Your task to perform on an android device: Play the last video I watched on Youtube Image 0: 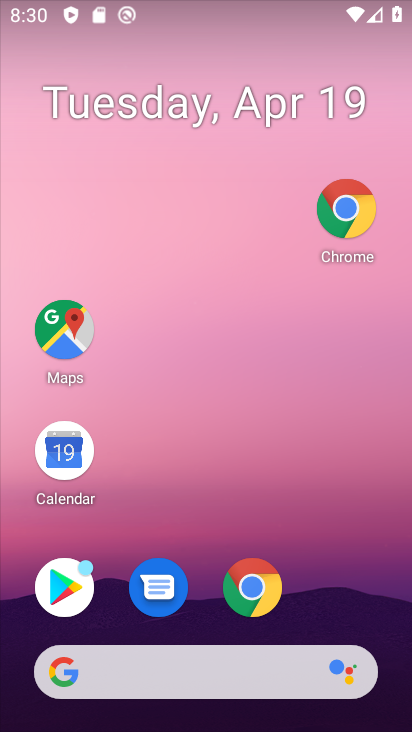
Step 0: click (161, 49)
Your task to perform on an android device: Play the last video I watched on Youtube Image 1: 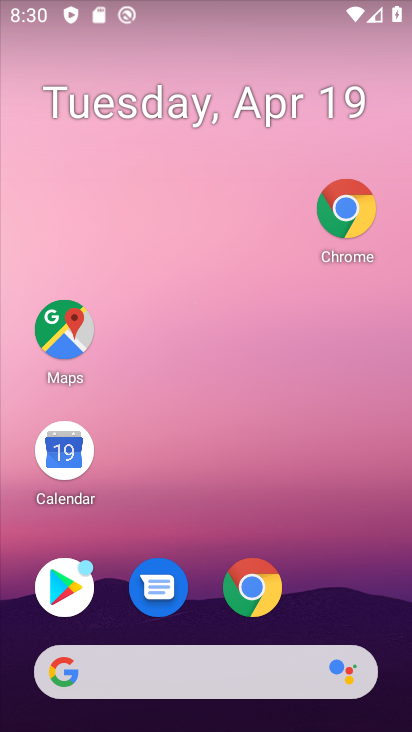
Step 1: click (276, 146)
Your task to perform on an android device: Play the last video I watched on Youtube Image 2: 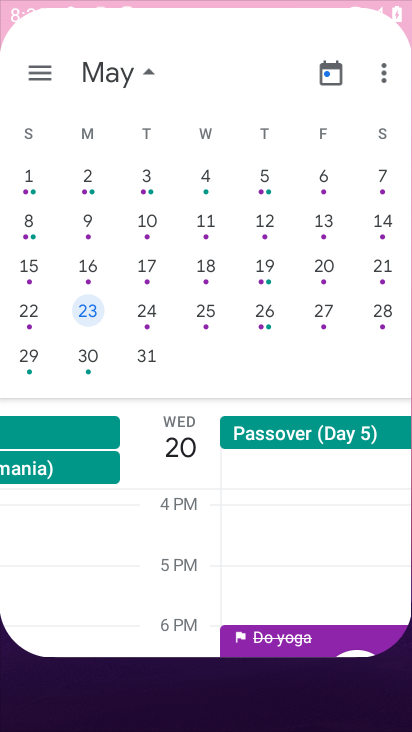
Step 2: drag from (267, 674) to (205, 155)
Your task to perform on an android device: Play the last video I watched on Youtube Image 3: 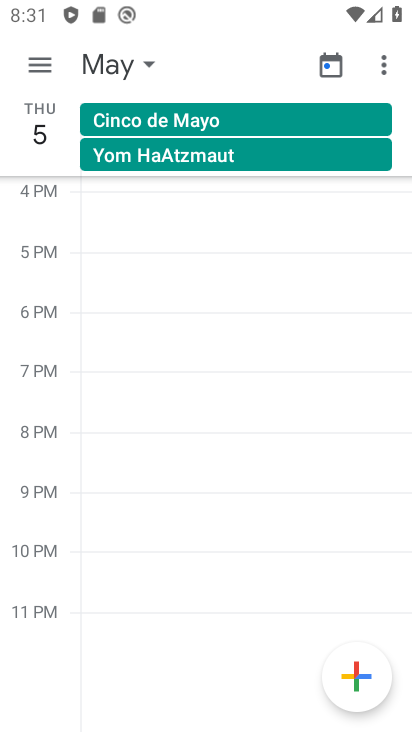
Step 3: press home button
Your task to perform on an android device: Play the last video I watched on Youtube Image 4: 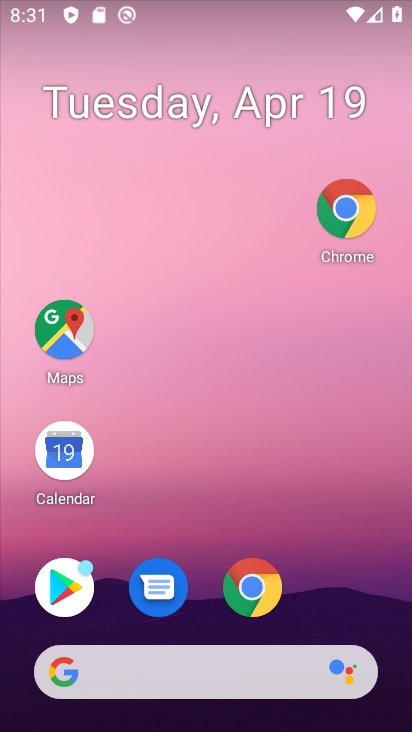
Step 4: drag from (240, 722) to (131, 110)
Your task to perform on an android device: Play the last video I watched on Youtube Image 5: 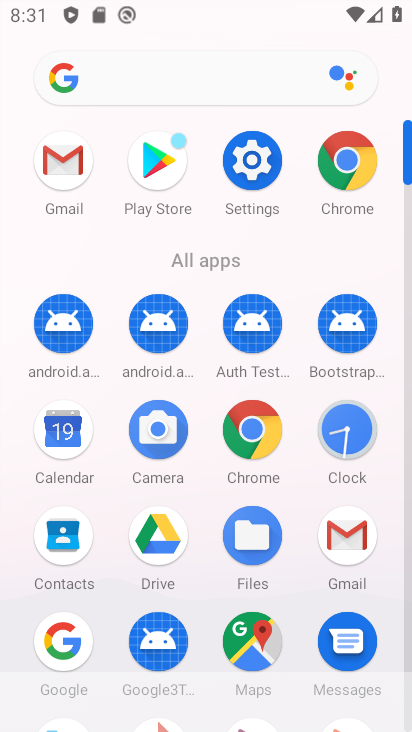
Step 5: drag from (384, 566) to (379, 109)
Your task to perform on an android device: Play the last video I watched on Youtube Image 6: 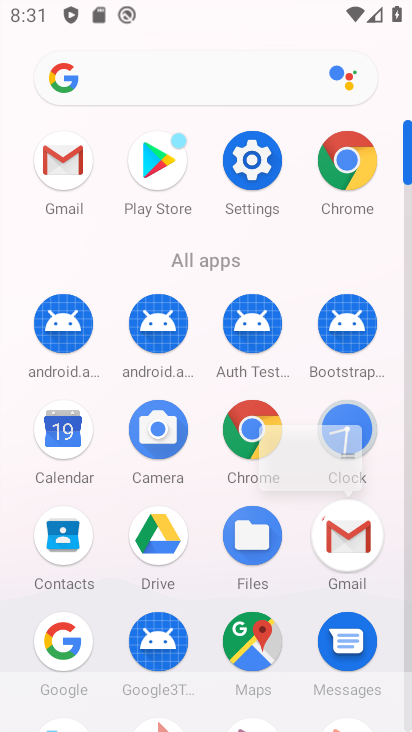
Step 6: drag from (357, 476) to (190, 80)
Your task to perform on an android device: Play the last video I watched on Youtube Image 7: 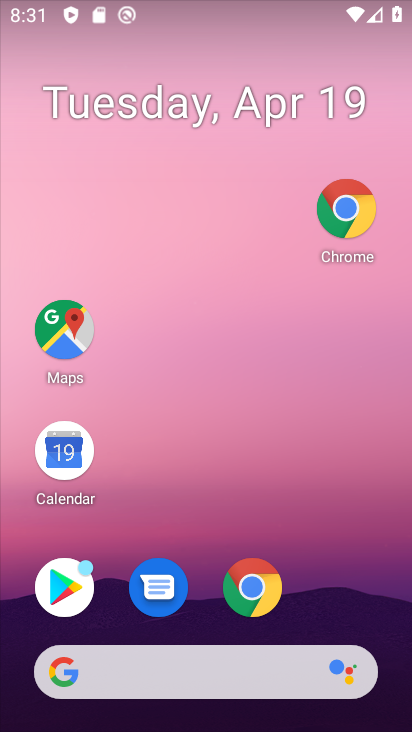
Step 7: drag from (354, 650) to (93, 177)
Your task to perform on an android device: Play the last video I watched on Youtube Image 8: 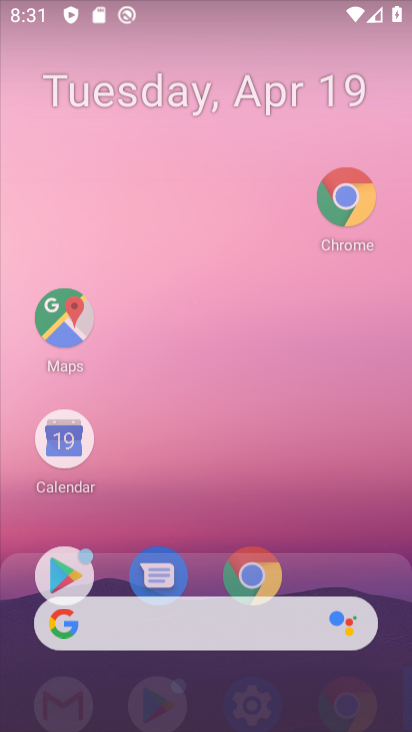
Step 8: drag from (210, 474) to (129, 46)
Your task to perform on an android device: Play the last video I watched on Youtube Image 9: 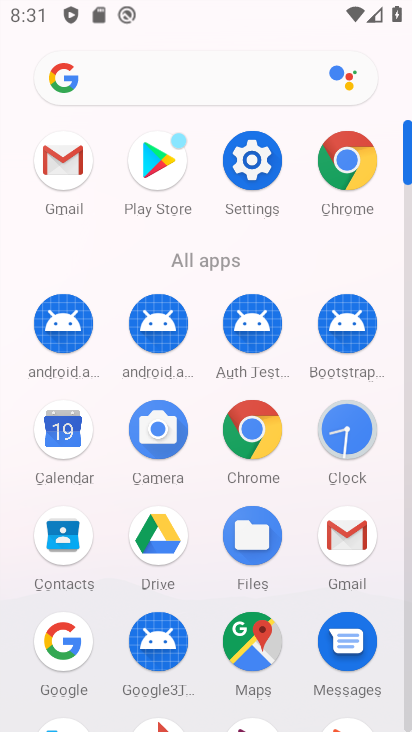
Step 9: drag from (310, 525) to (229, 37)
Your task to perform on an android device: Play the last video I watched on Youtube Image 10: 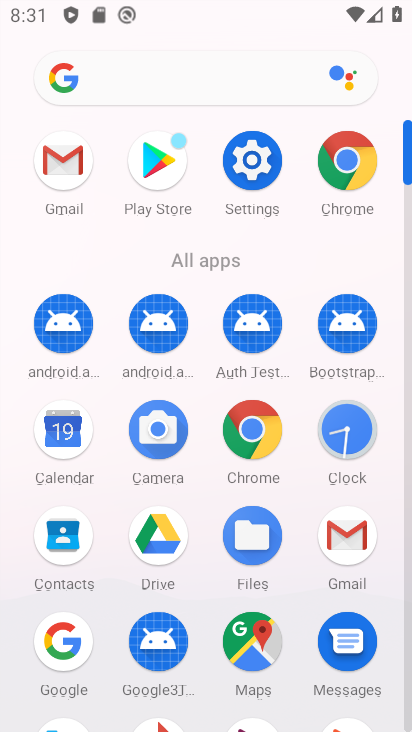
Step 10: drag from (240, 548) to (251, 27)
Your task to perform on an android device: Play the last video I watched on Youtube Image 11: 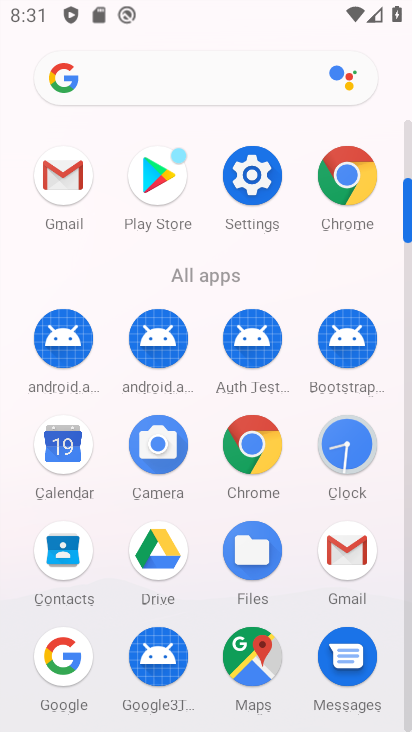
Step 11: drag from (289, 478) to (235, 132)
Your task to perform on an android device: Play the last video I watched on Youtube Image 12: 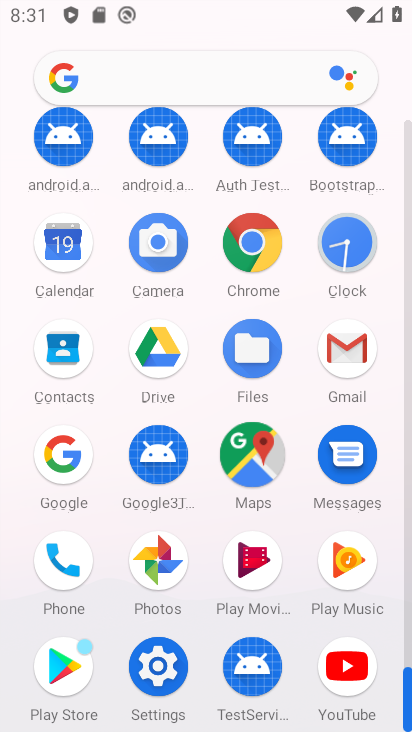
Step 12: drag from (203, 496) to (216, 188)
Your task to perform on an android device: Play the last video I watched on Youtube Image 13: 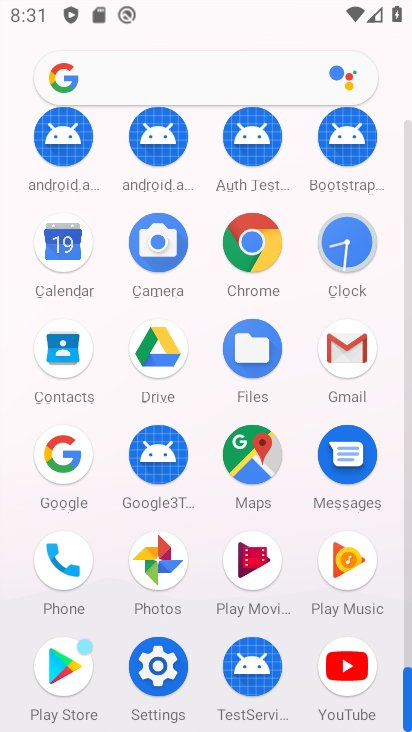
Step 13: click (341, 668)
Your task to perform on an android device: Play the last video I watched on Youtube Image 14: 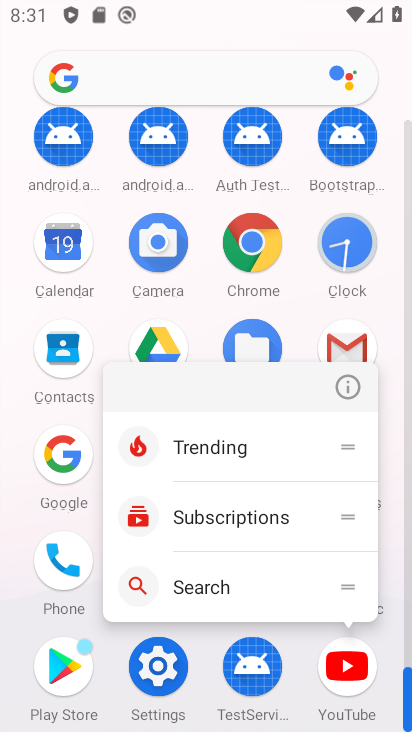
Step 14: click (338, 671)
Your task to perform on an android device: Play the last video I watched on Youtube Image 15: 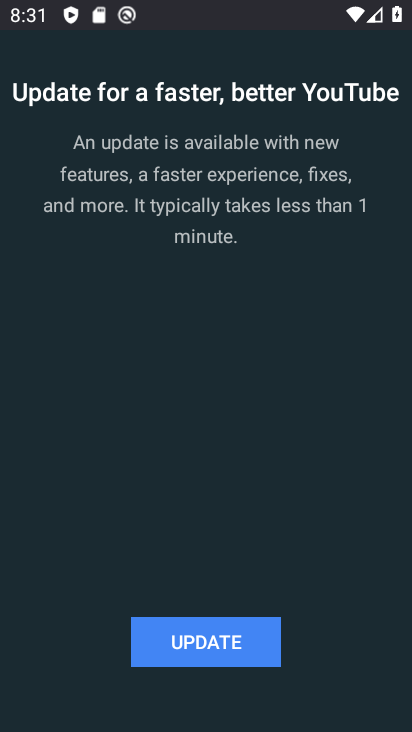
Step 15: click (203, 632)
Your task to perform on an android device: Play the last video I watched on Youtube Image 16: 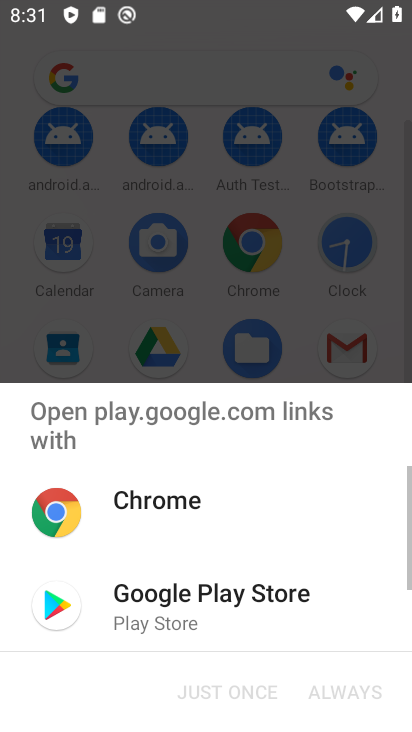
Step 16: click (176, 592)
Your task to perform on an android device: Play the last video I watched on Youtube Image 17: 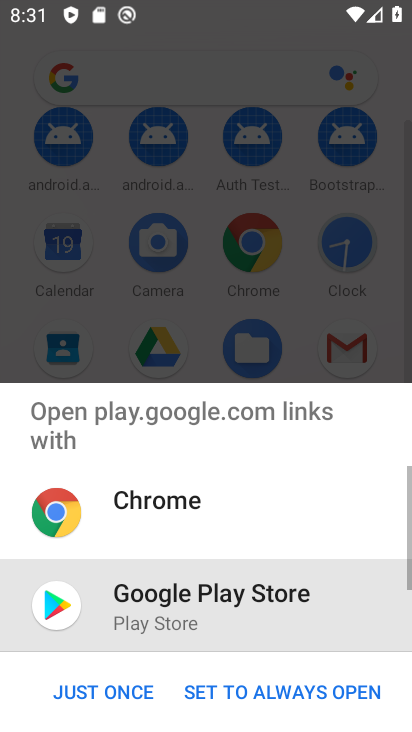
Step 17: click (167, 589)
Your task to perform on an android device: Play the last video I watched on Youtube Image 18: 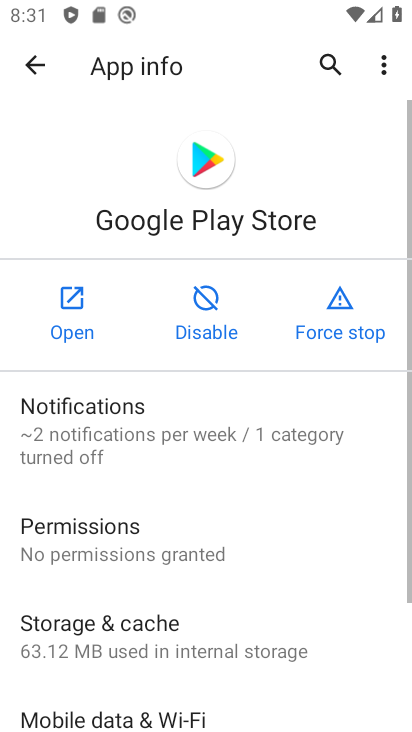
Step 18: click (177, 606)
Your task to perform on an android device: Play the last video I watched on Youtube Image 19: 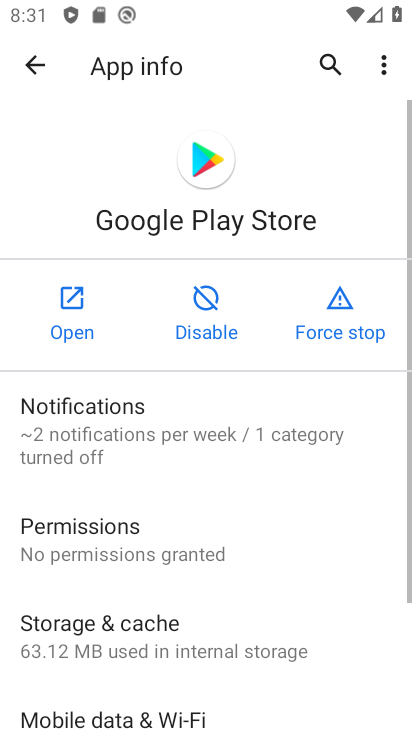
Step 19: click (177, 606)
Your task to perform on an android device: Play the last video I watched on Youtube Image 20: 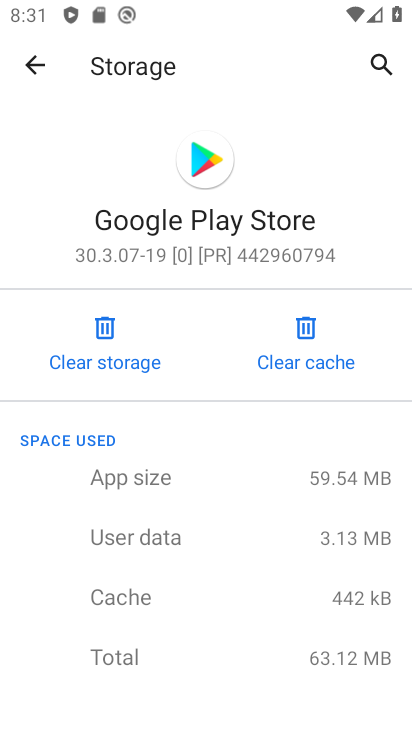
Step 20: click (15, 50)
Your task to perform on an android device: Play the last video I watched on Youtube Image 21: 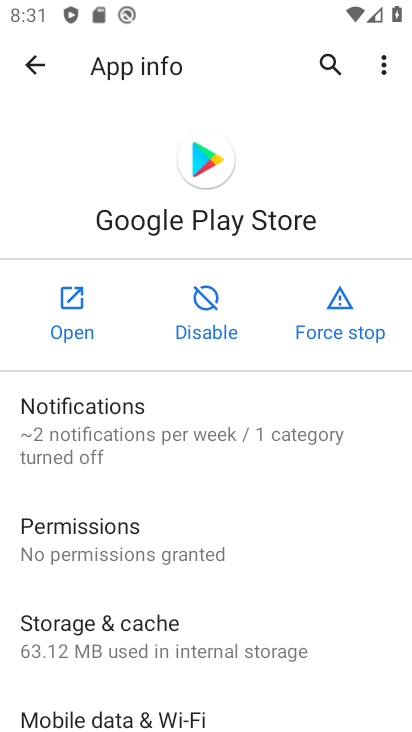
Step 21: click (22, 61)
Your task to perform on an android device: Play the last video I watched on Youtube Image 22: 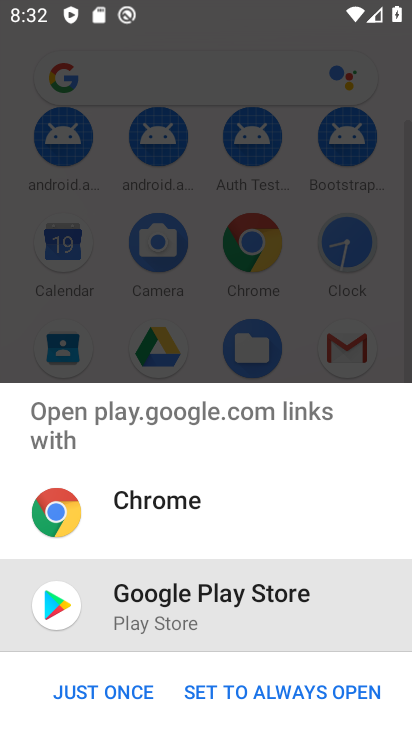
Step 22: click (101, 676)
Your task to perform on an android device: Play the last video I watched on Youtube Image 23: 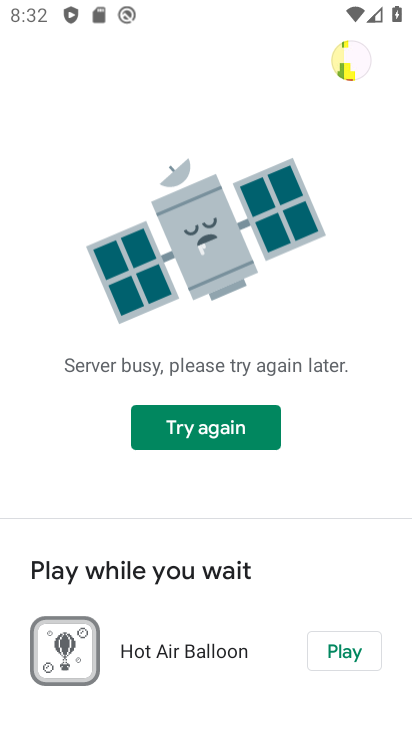
Step 23: task complete